Your task to perform on an android device: toggle priority inbox in the gmail app Image 0: 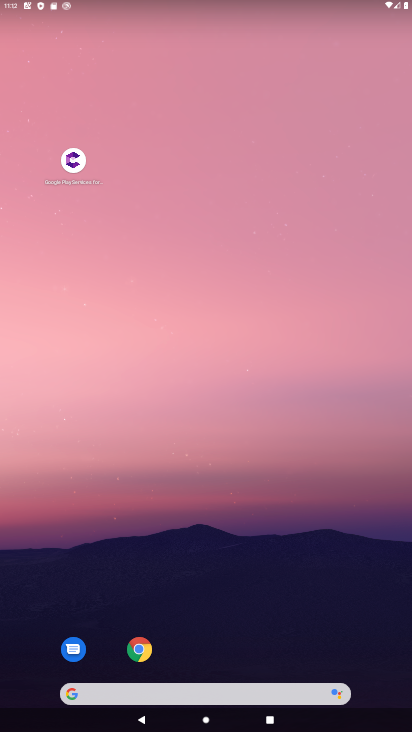
Step 0: press home button
Your task to perform on an android device: toggle priority inbox in the gmail app Image 1: 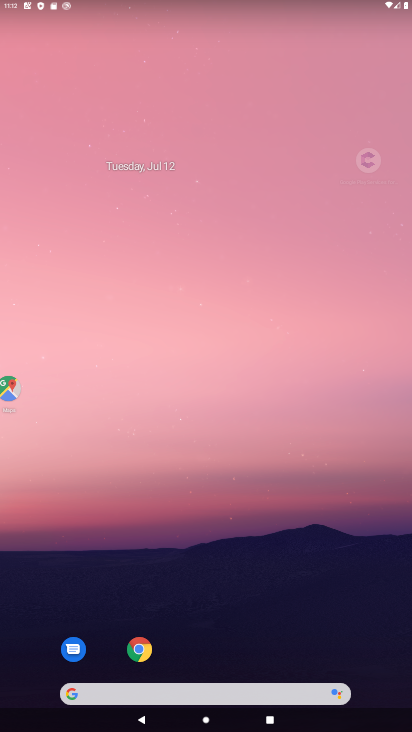
Step 1: drag from (283, 671) to (307, 144)
Your task to perform on an android device: toggle priority inbox in the gmail app Image 2: 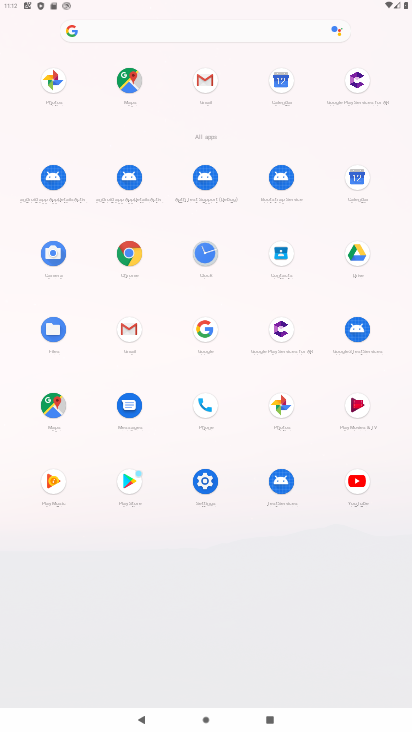
Step 2: click (139, 335)
Your task to perform on an android device: toggle priority inbox in the gmail app Image 3: 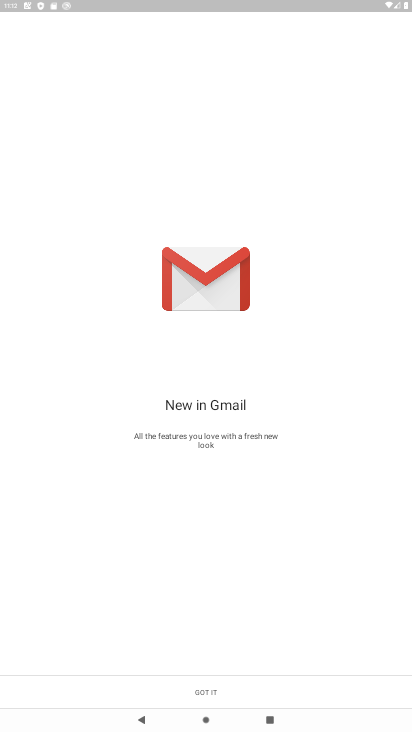
Step 3: click (223, 684)
Your task to perform on an android device: toggle priority inbox in the gmail app Image 4: 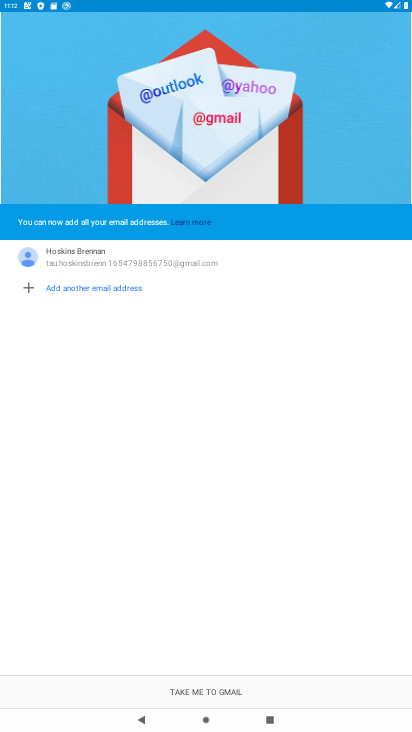
Step 4: click (201, 684)
Your task to perform on an android device: toggle priority inbox in the gmail app Image 5: 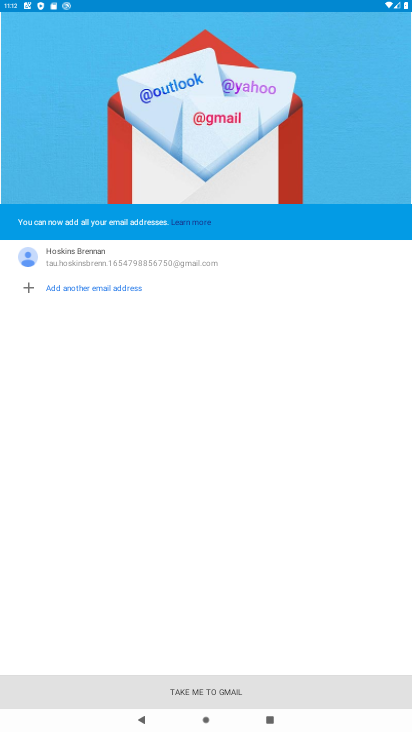
Step 5: click (201, 684)
Your task to perform on an android device: toggle priority inbox in the gmail app Image 6: 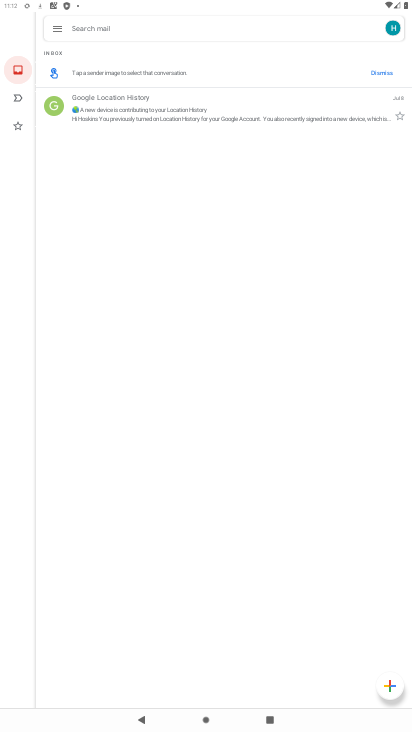
Step 6: click (49, 27)
Your task to perform on an android device: toggle priority inbox in the gmail app Image 7: 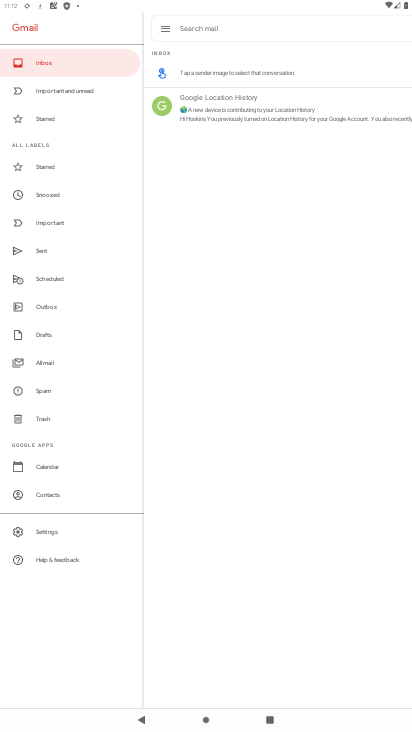
Step 7: click (0, 525)
Your task to perform on an android device: toggle priority inbox in the gmail app Image 8: 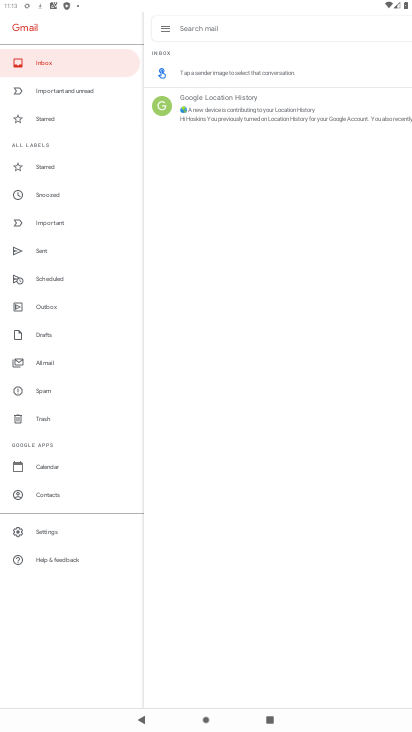
Step 8: click (57, 541)
Your task to perform on an android device: toggle priority inbox in the gmail app Image 9: 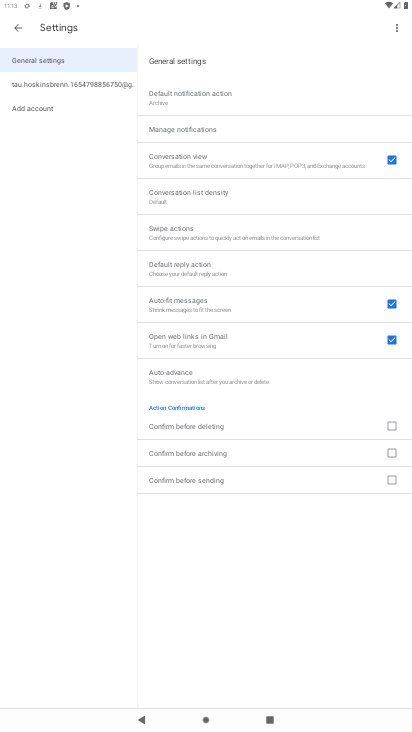
Step 9: click (30, 84)
Your task to perform on an android device: toggle priority inbox in the gmail app Image 10: 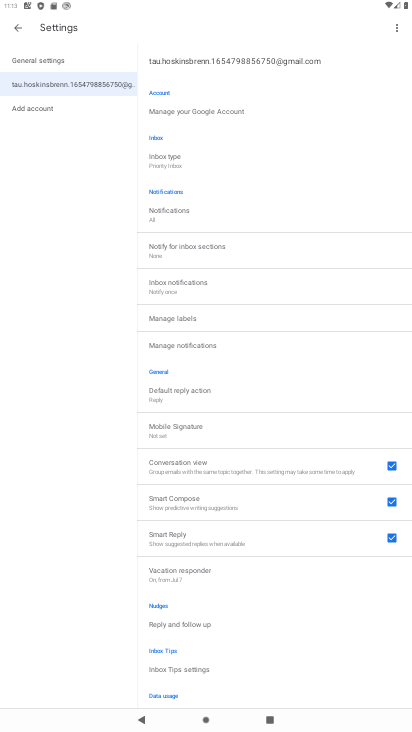
Step 10: click (157, 159)
Your task to perform on an android device: toggle priority inbox in the gmail app Image 11: 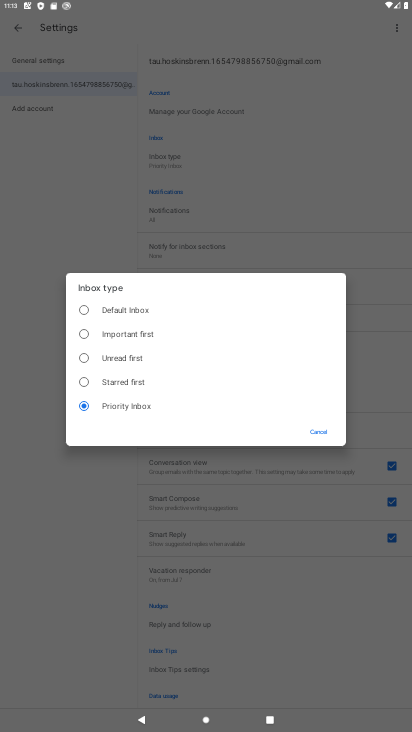
Step 11: click (107, 343)
Your task to perform on an android device: toggle priority inbox in the gmail app Image 12: 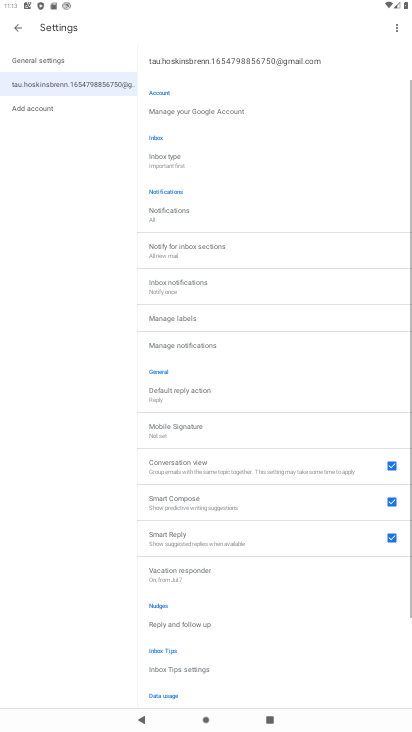
Step 12: task complete